Your task to perform on an android device: Open network settings Image 0: 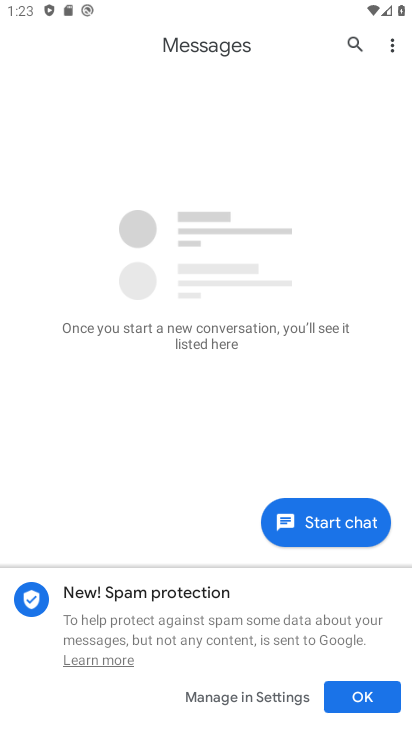
Step 0: press home button
Your task to perform on an android device: Open network settings Image 1: 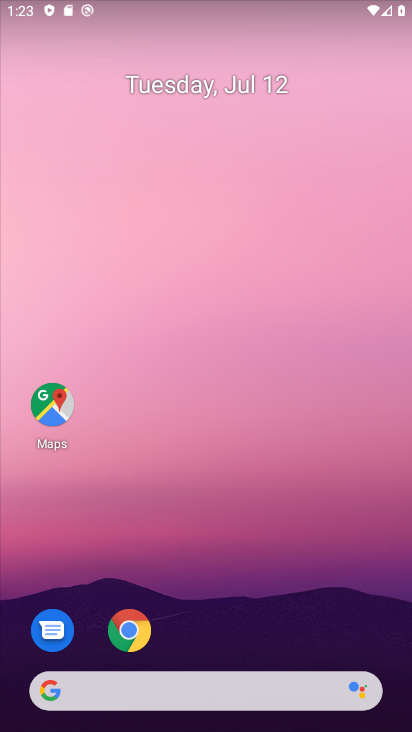
Step 1: drag from (334, 645) to (299, 86)
Your task to perform on an android device: Open network settings Image 2: 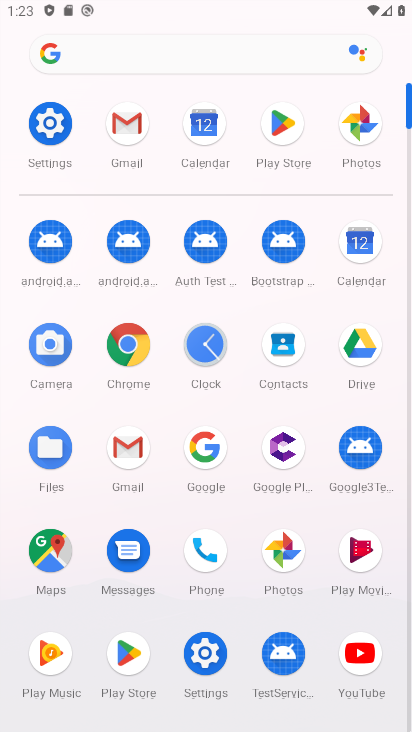
Step 2: click (205, 651)
Your task to perform on an android device: Open network settings Image 3: 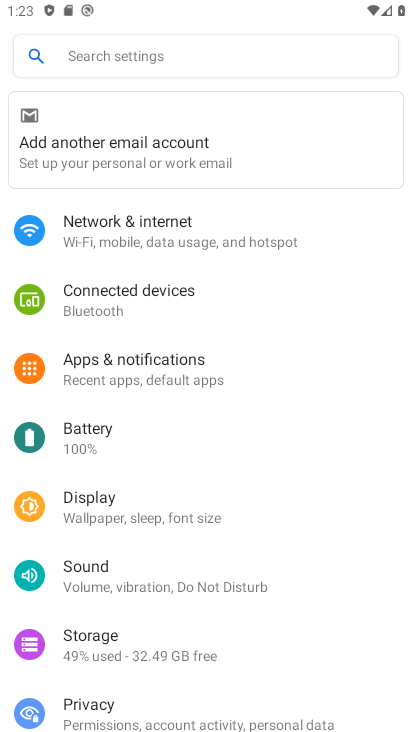
Step 3: click (109, 226)
Your task to perform on an android device: Open network settings Image 4: 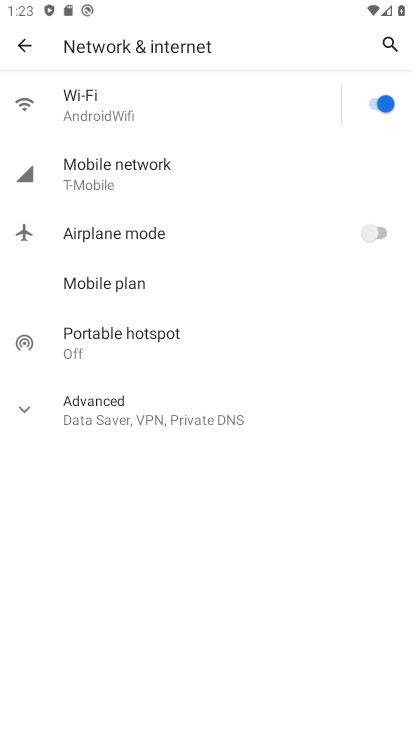
Step 4: click (94, 171)
Your task to perform on an android device: Open network settings Image 5: 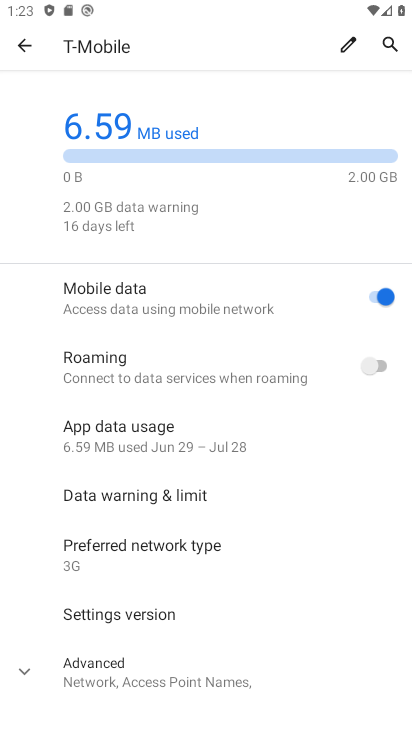
Step 5: click (16, 663)
Your task to perform on an android device: Open network settings Image 6: 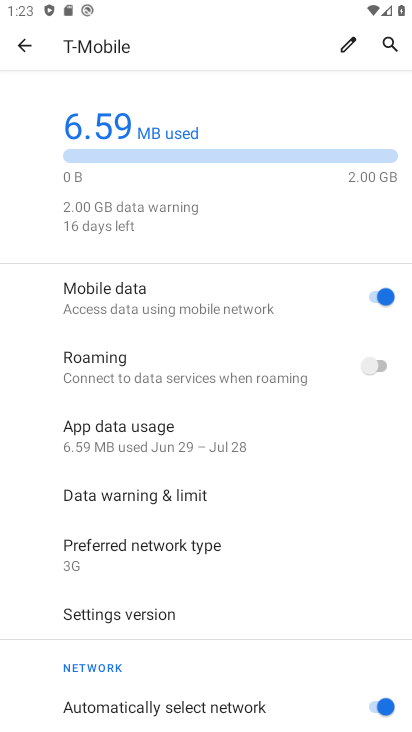
Step 6: task complete